Your task to perform on an android device: open a new tab in the chrome app Image 0: 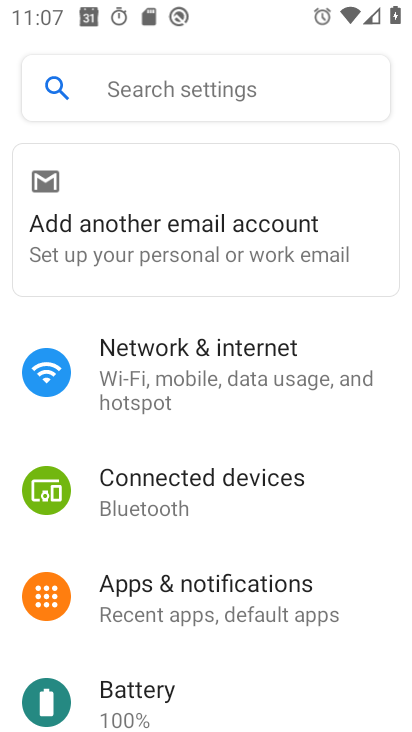
Step 0: press home button
Your task to perform on an android device: open a new tab in the chrome app Image 1: 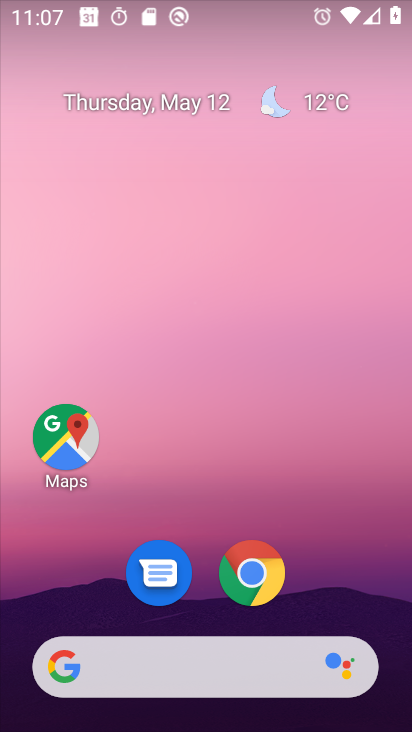
Step 1: click (254, 569)
Your task to perform on an android device: open a new tab in the chrome app Image 2: 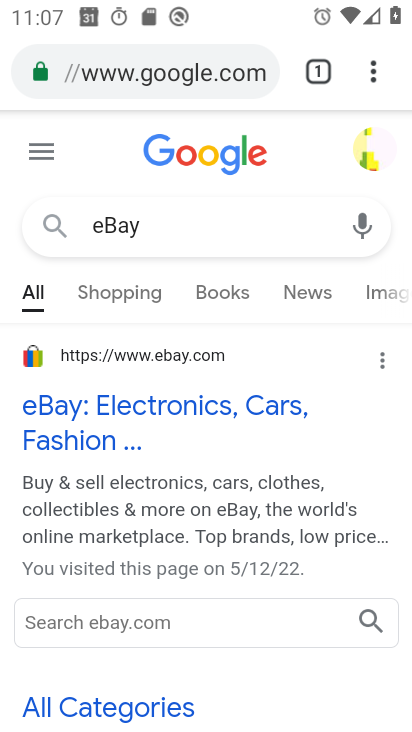
Step 2: click (371, 69)
Your task to perform on an android device: open a new tab in the chrome app Image 3: 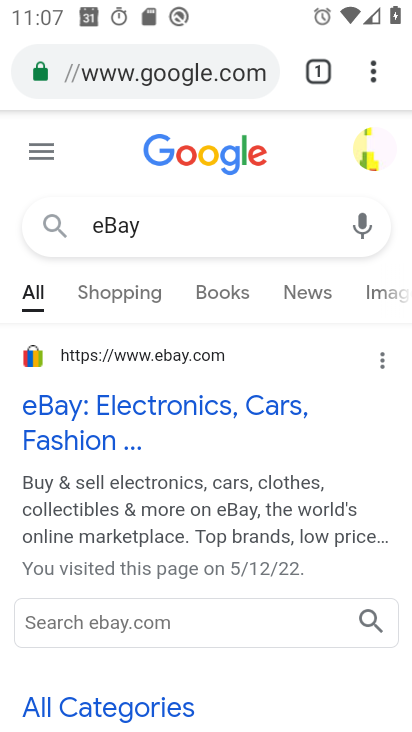
Step 3: click (374, 70)
Your task to perform on an android device: open a new tab in the chrome app Image 4: 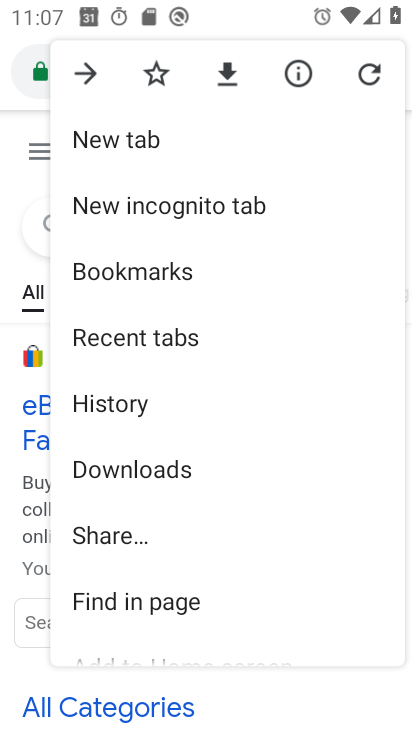
Step 4: click (97, 141)
Your task to perform on an android device: open a new tab in the chrome app Image 5: 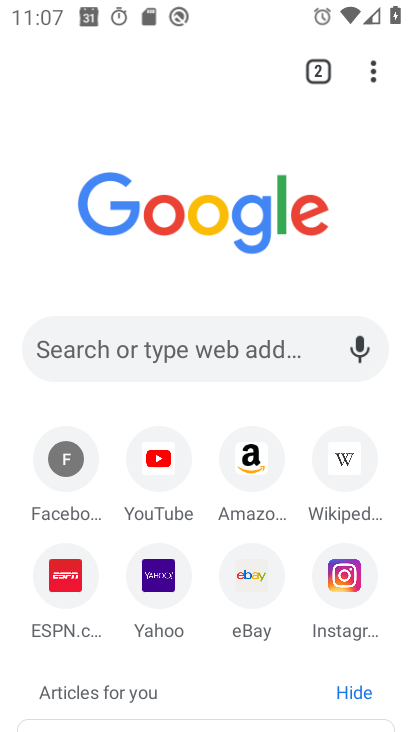
Step 5: task complete